Your task to perform on an android device: check data usage Image 0: 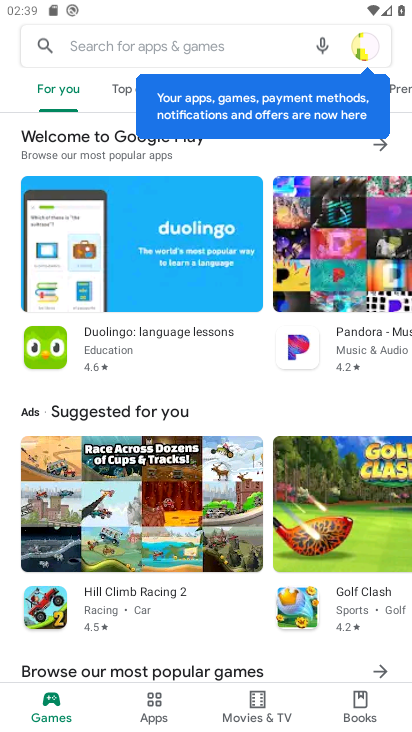
Step 0: press home button
Your task to perform on an android device: check data usage Image 1: 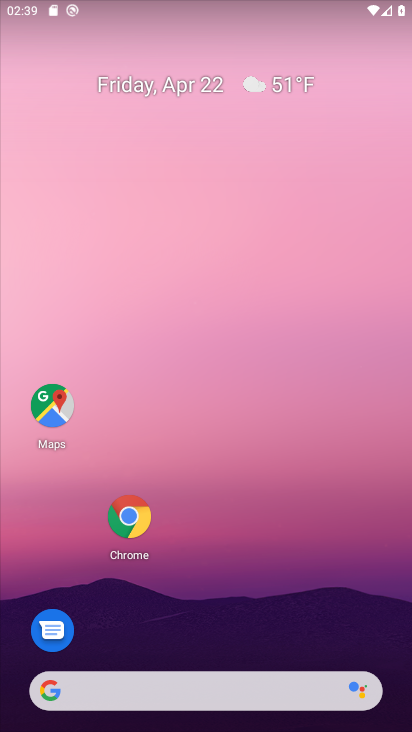
Step 1: drag from (373, 520) to (364, 154)
Your task to perform on an android device: check data usage Image 2: 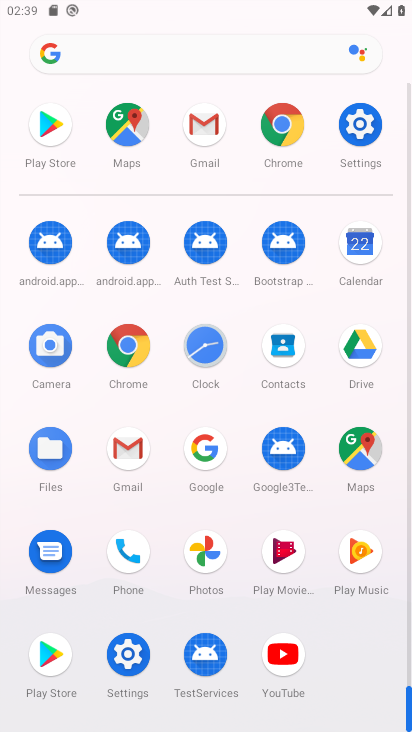
Step 2: click (351, 133)
Your task to perform on an android device: check data usage Image 3: 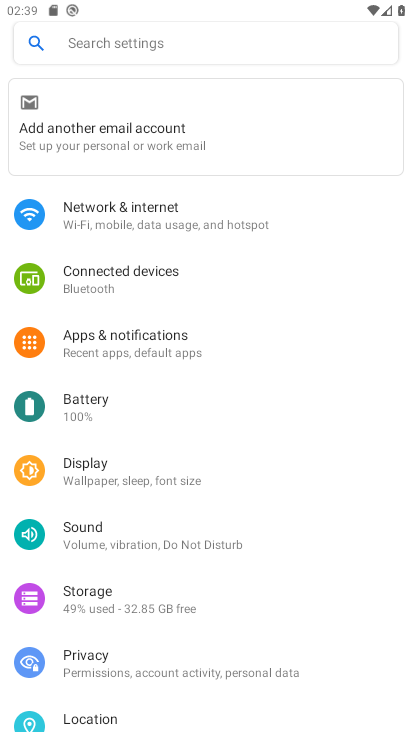
Step 3: click (100, 213)
Your task to perform on an android device: check data usage Image 4: 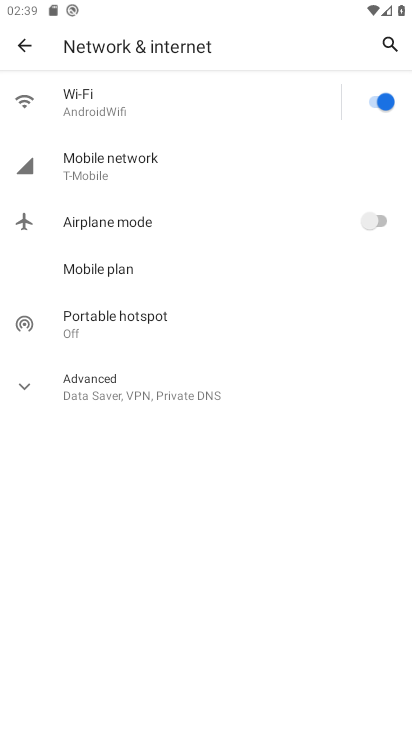
Step 4: click (88, 156)
Your task to perform on an android device: check data usage Image 5: 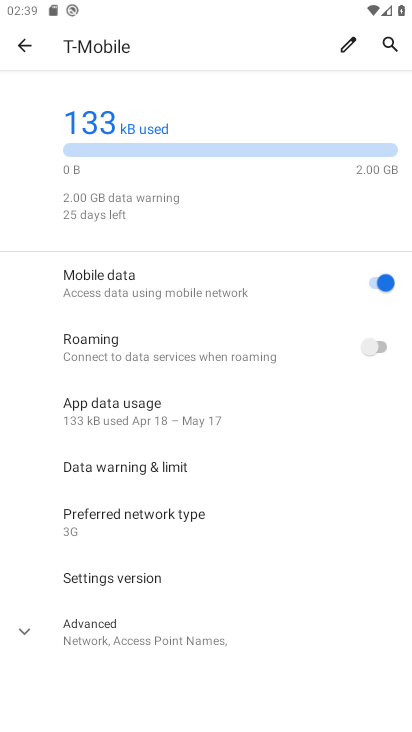
Step 5: task complete